Your task to perform on an android device: Open Google Maps Image 0: 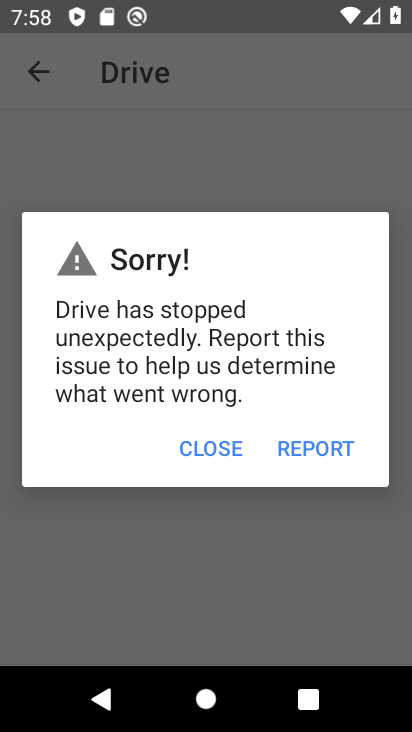
Step 0: press home button
Your task to perform on an android device: Open Google Maps Image 1: 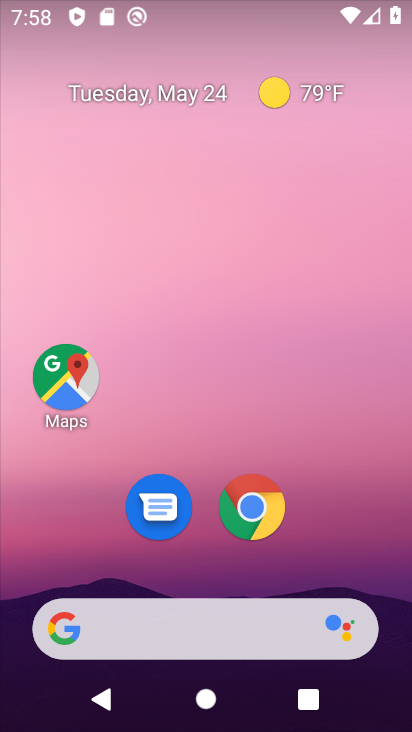
Step 1: click (292, 19)
Your task to perform on an android device: Open Google Maps Image 2: 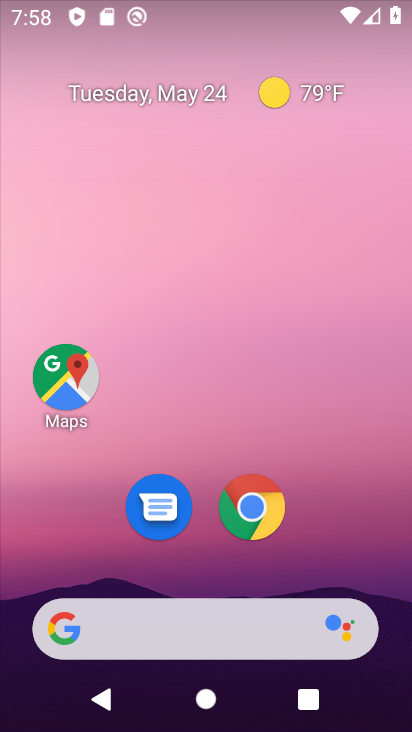
Step 2: drag from (352, 486) to (248, 2)
Your task to perform on an android device: Open Google Maps Image 3: 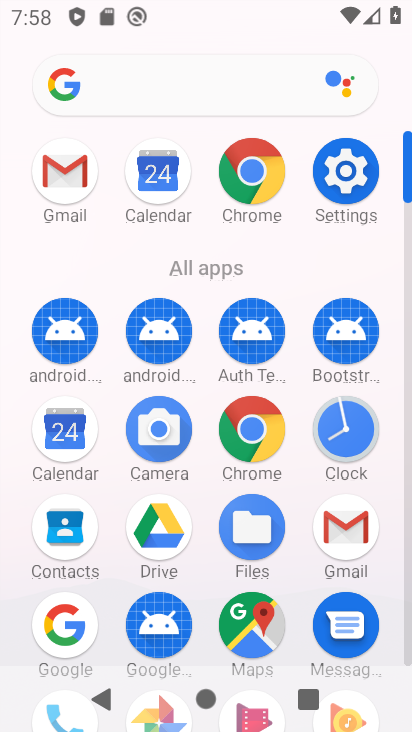
Step 3: click (4, 290)
Your task to perform on an android device: Open Google Maps Image 4: 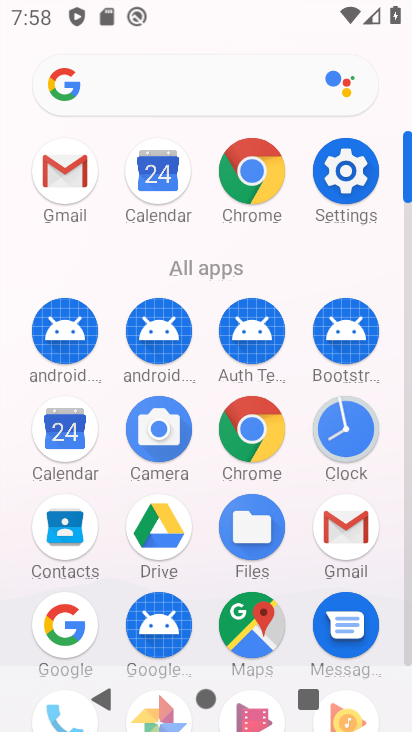
Step 4: drag from (17, 552) to (22, 231)
Your task to perform on an android device: Open Google Maps Image 5: 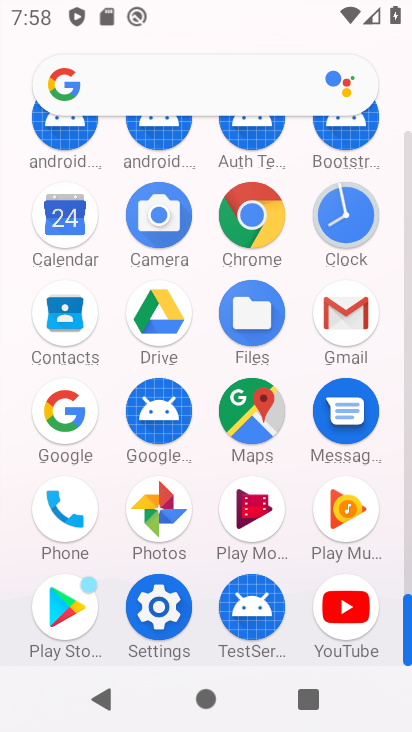
Step 5: click (246, 410)
Your task to perform on an android device: Open Google Maps Image 6: 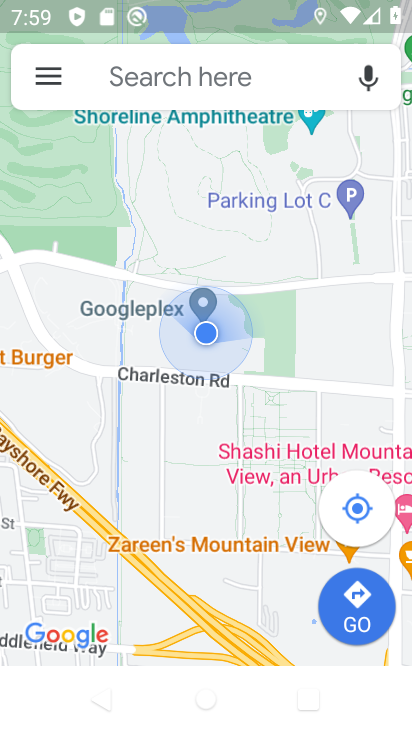
Step 6: task complete